Your task to perform on an android device: add a contact Image 0: 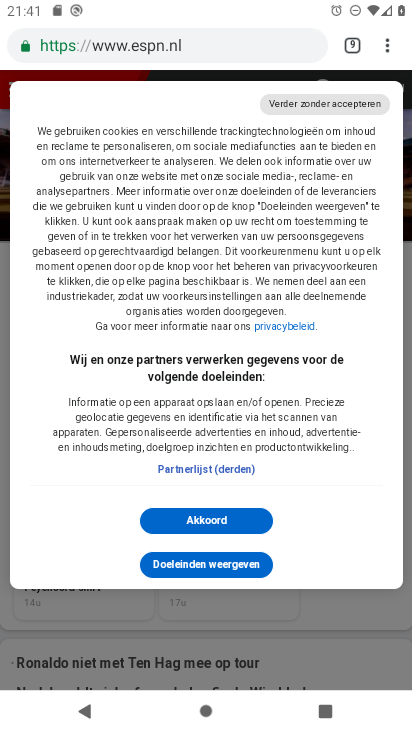
Step 0: press home button
Your task to perform on an android device: add a contact Image 1: 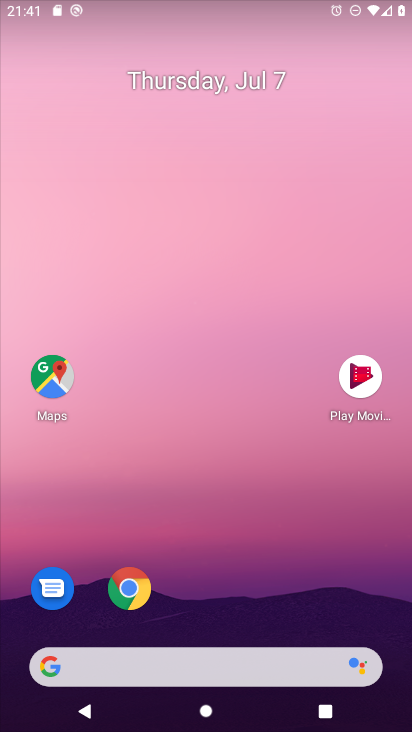
Step 1: drag from (200, 632) to (218, 212)
Your task to perform on an android device: add a contact Image 2: 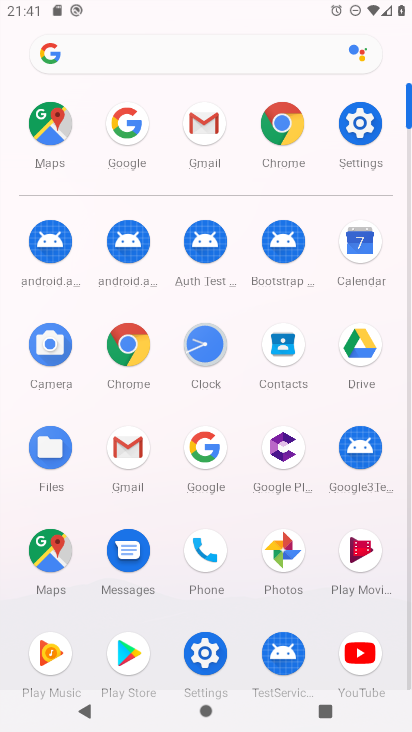
Step 2: click (202, 538)
Your task to perform on an android device: add a contact Image 3: 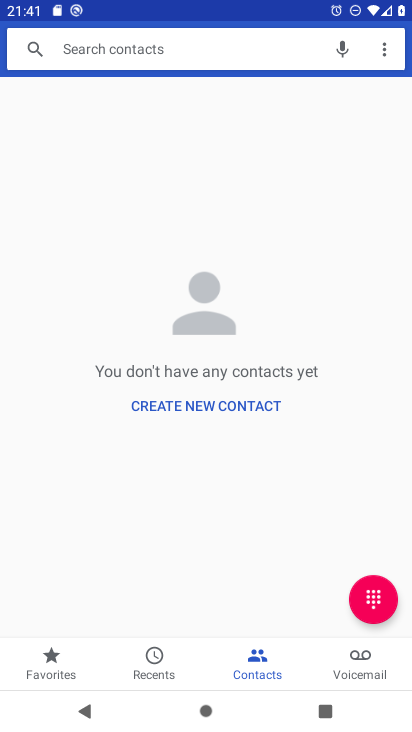
Step 3: click (233, 403)
Your task to perform on an android device: add a contact Image 4: 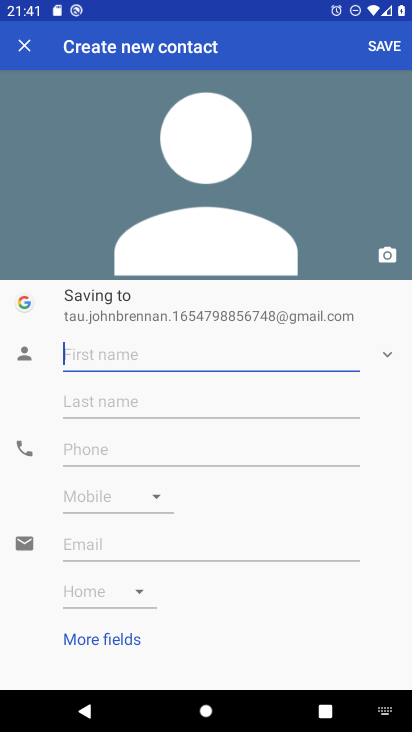
Step 4: click (200, 352)
Your task to perform on an android device: add a contact Image 5: 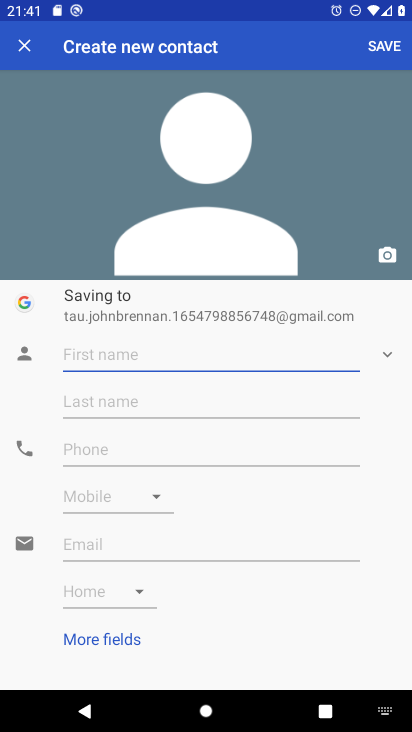
Step 5: type "saroj "
Your task to perform on an android device: add a contact Image 6: 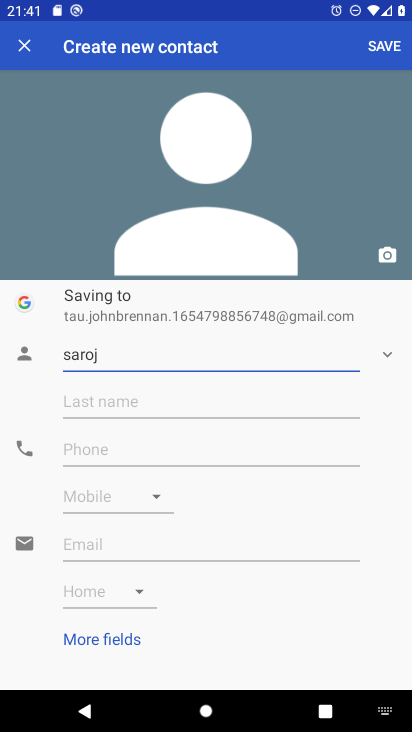
Step 6: click (143, 459)
Your task to perform on an android device: add a contact Image 7: 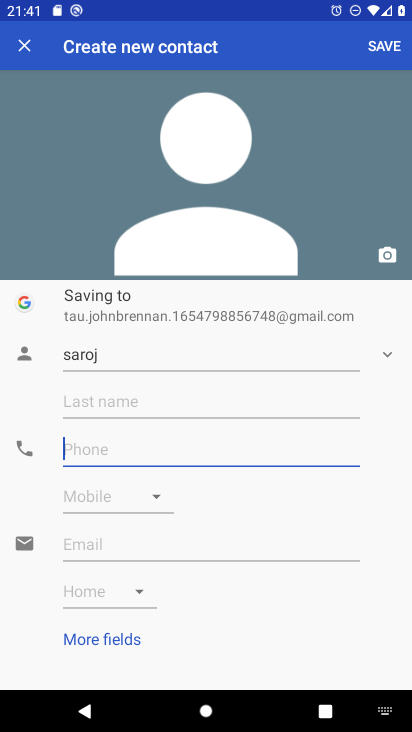
Step 7: type "0987654321"
Your task to perform on an android device: add a contact Image 8: 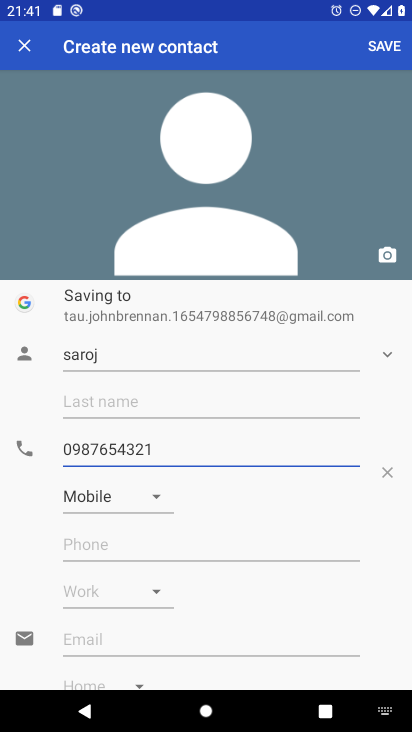
Step 8: click (382, 45)
Your task to perform on an android device: add a contact Image 9: 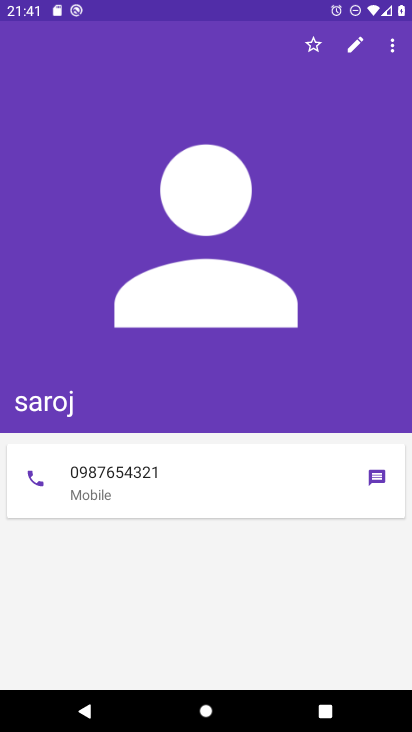
Step 9: task complete